Your task to perform on an android device: See recent photos Image 0: 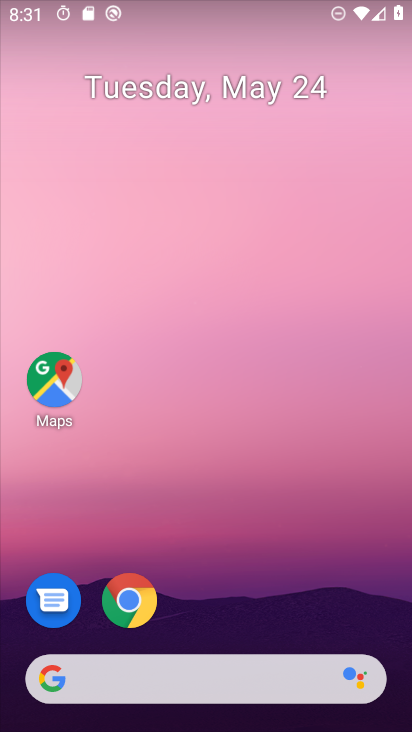
Step 0: drag from (229, 606) to (234, 48)
Your task to perform on an android device: See recent photos Image 1: 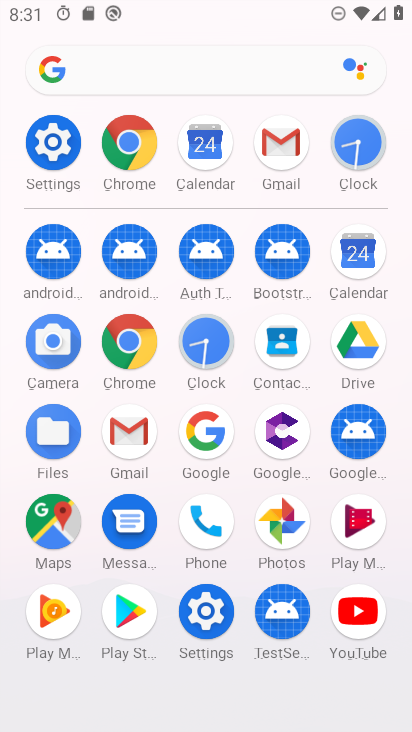
Step 1: click (284, 510)
Your task to perform on an android device: See recent photos Image 2: 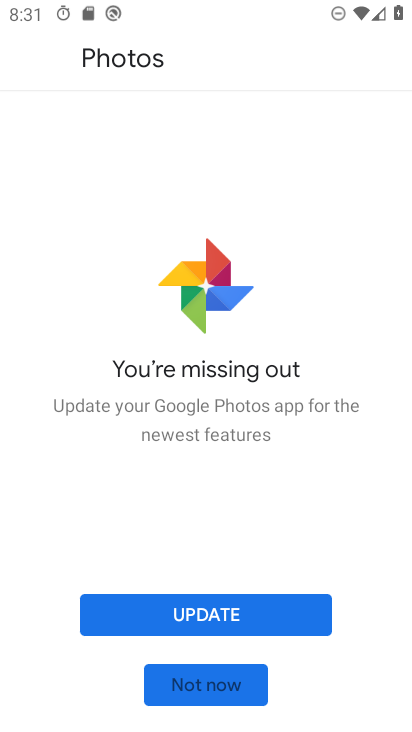
Step 2: click (166, 693)
Your task to perform on an android device: See recent photos Image 3: 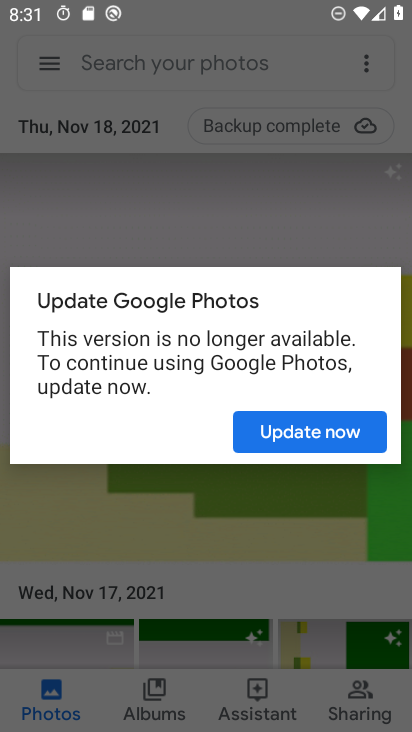
Step 3: click (305, 431)
Your task to perform on an android device: See recent photos Image 4: 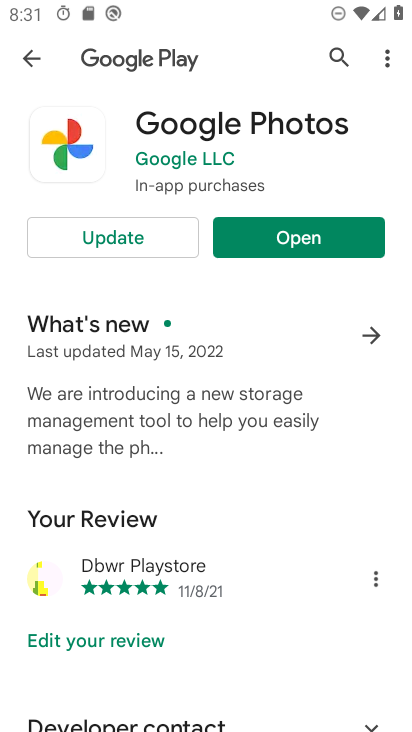
Step 4: click (274, 247)
Your task to perform on an android device: See recent photos Image 5: 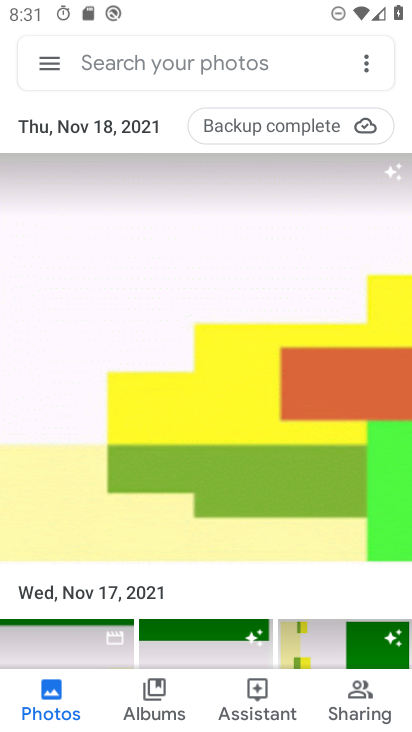
Step 5: task complete